Your task to perform on an android device: Show me popular games on the Play Store Image 0: 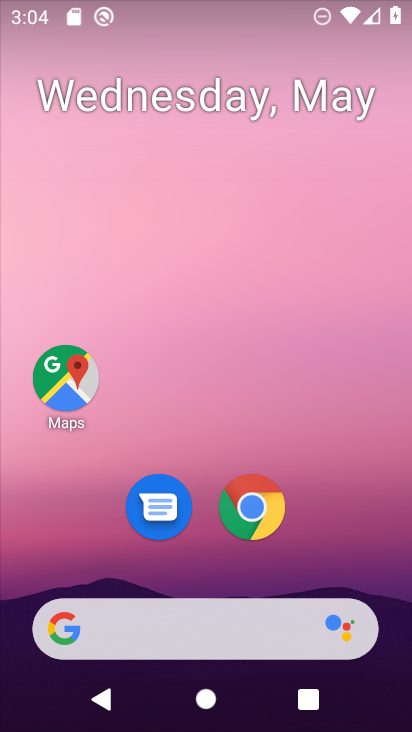
Step 0: drag from (217, 568) to (246, 97)
Your task to perform on an android device: Show me popular games on the Play Store Image 1: 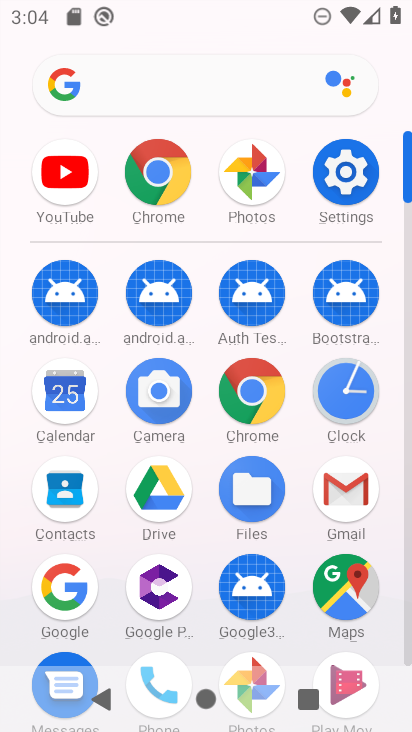
Step 1: drag from (201, 560) to (208, 251)
Your task to perform on an android device: Show me popular games on the Play Store Image 2: 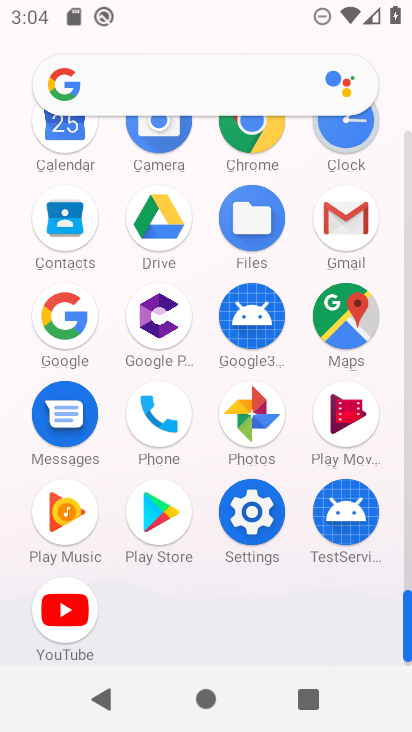
Step 2: click (178, 537)
Your task to perform on an android device: Show me popular games on the Play Store Image 3: 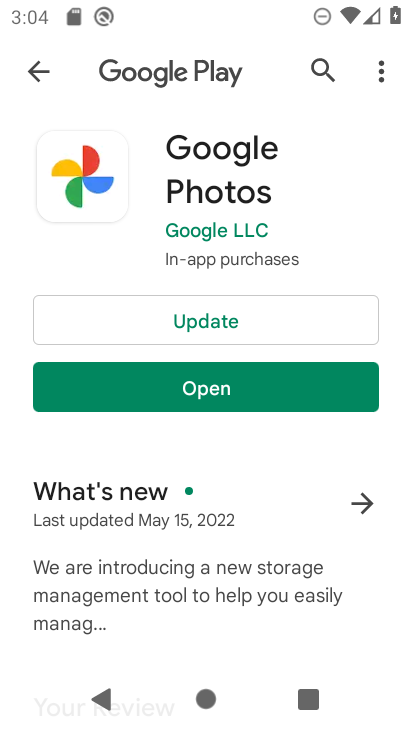
Step 3: click (19, 60)
Your task to perform on an android device: Show me popular games on the Play Store Image 4: 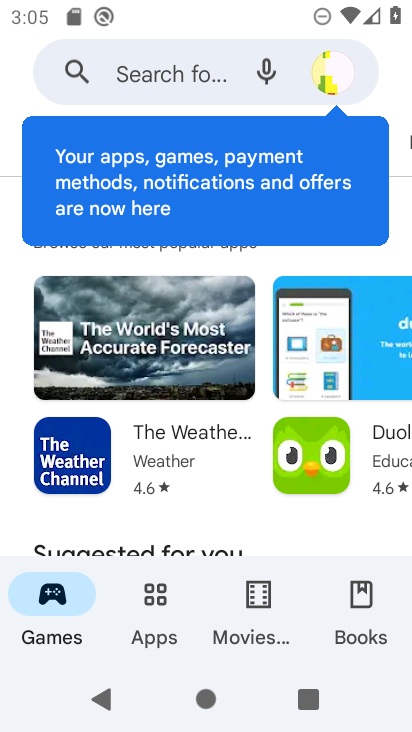
Step 4: click (16, 129)
Your task to perform on an android device: Show me popular games on the Play Store Image 5: 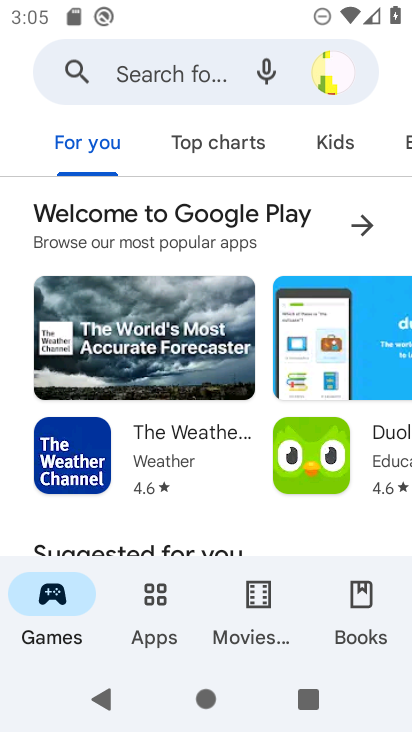
Step 5: click (209, 138)
Your task to perform on an android device: Show me popular games on the Play Store Image 6: 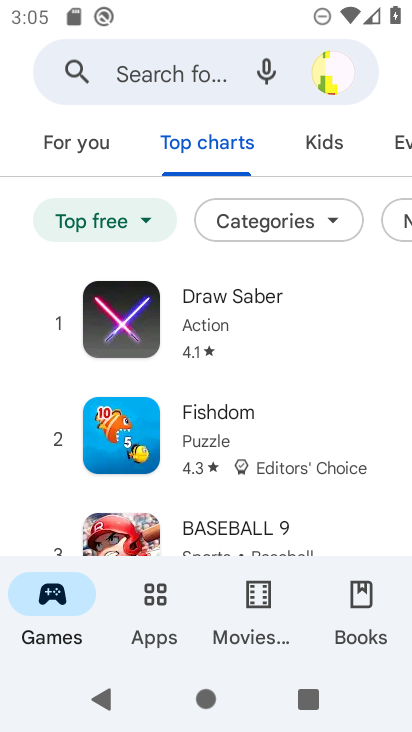
Step 6: task complete